Your task to perform on an android device: Search for the best rated 4K TV on Best Buy. Image 0: 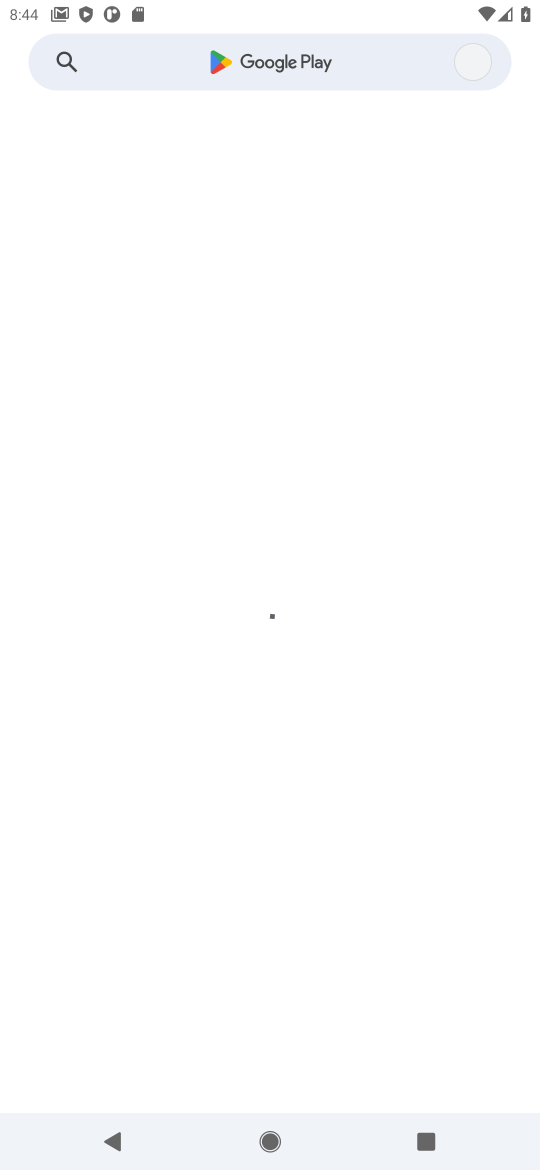
Step 0: press home button
Your task to perform on an android device: Search for the best rated 4K TV on Best Buy. Image 1: 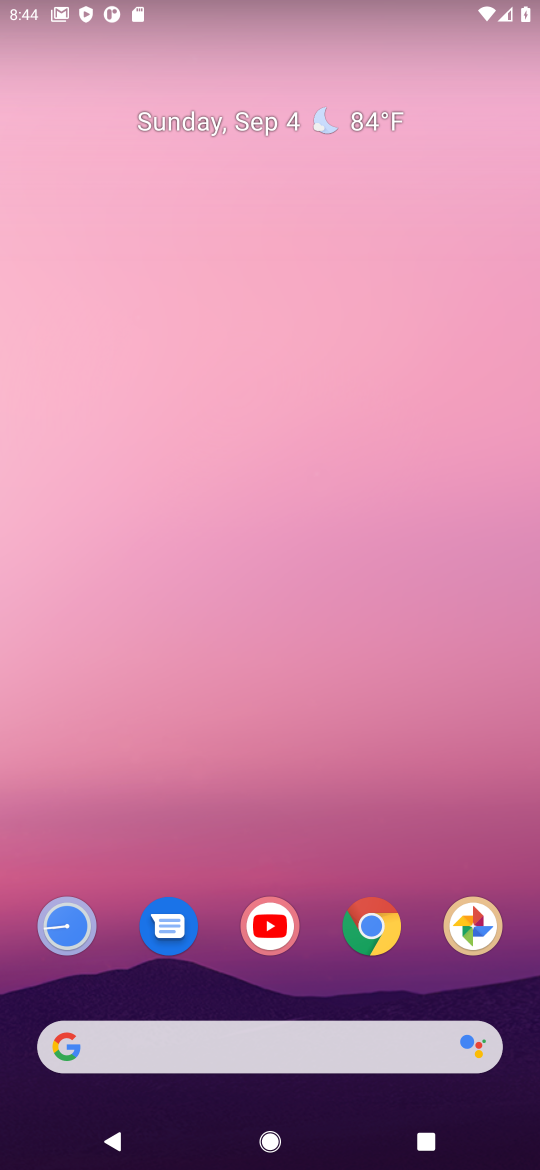
Step 1: click (234, 1042)
Your task to perform on an android device: Search for the best rated 4K TV on Best Buy. Image 2: 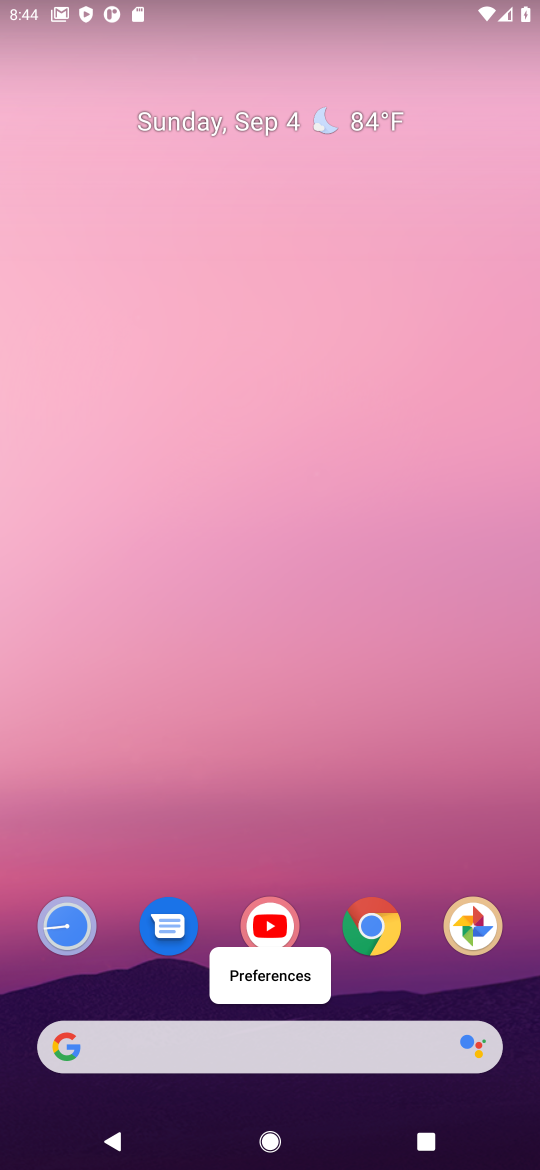
Step 2: click (97, 1043)
Your task to perform on an android device: Search for the best rated 4K TV on Best Buy. Image 3: 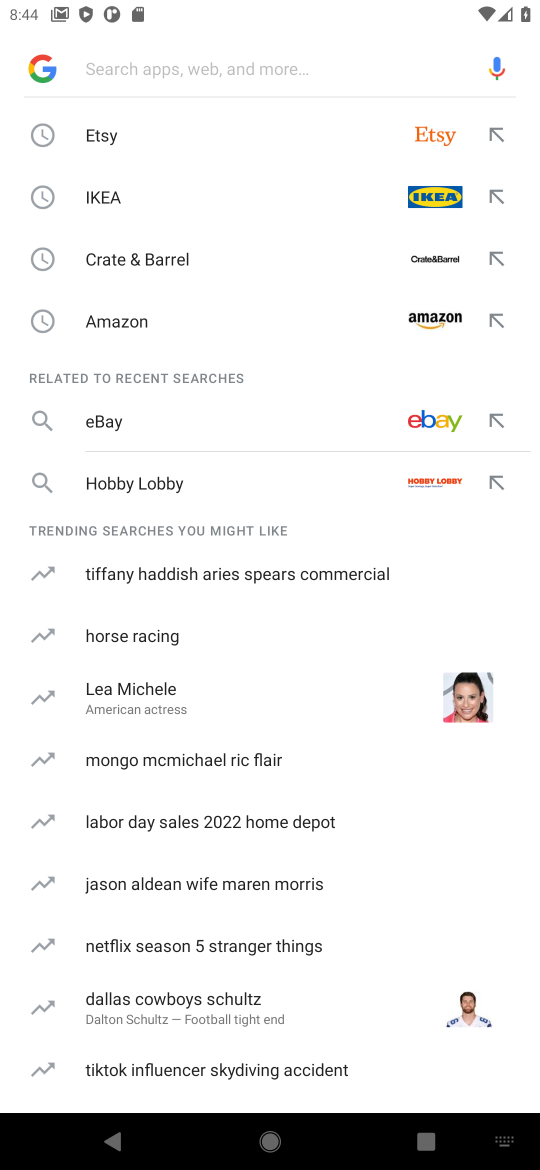
Step 3: type "best buy"
Your task to perform on an android device: Search for the best rated 4K TV on Best Buy. Image 4: 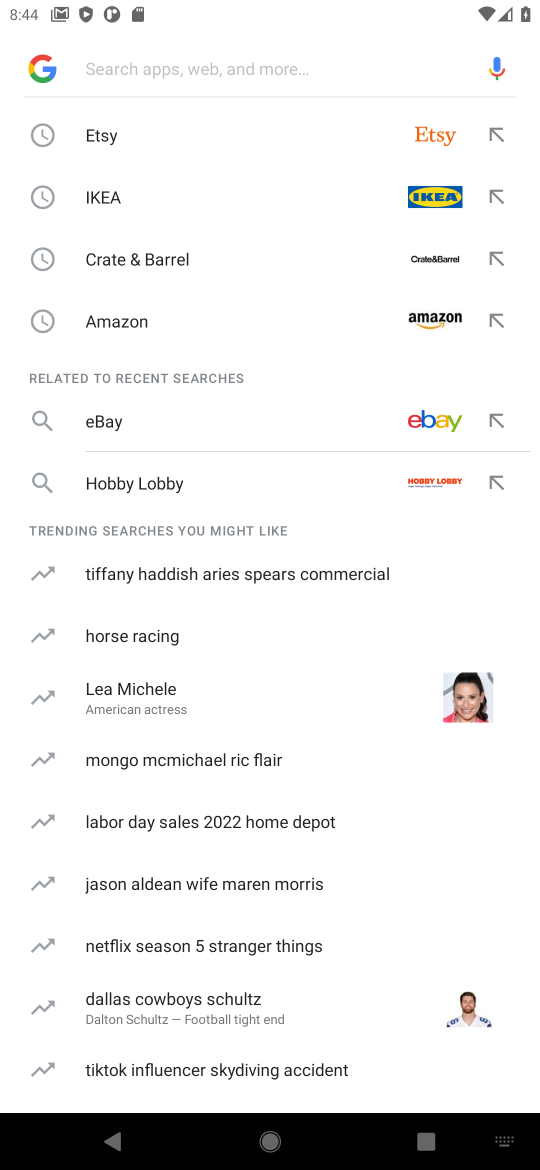
Step 4: click (128, 61)
Your task to perform on an android device: Search for the best rated 4K TV on Best Buy. Image 5: 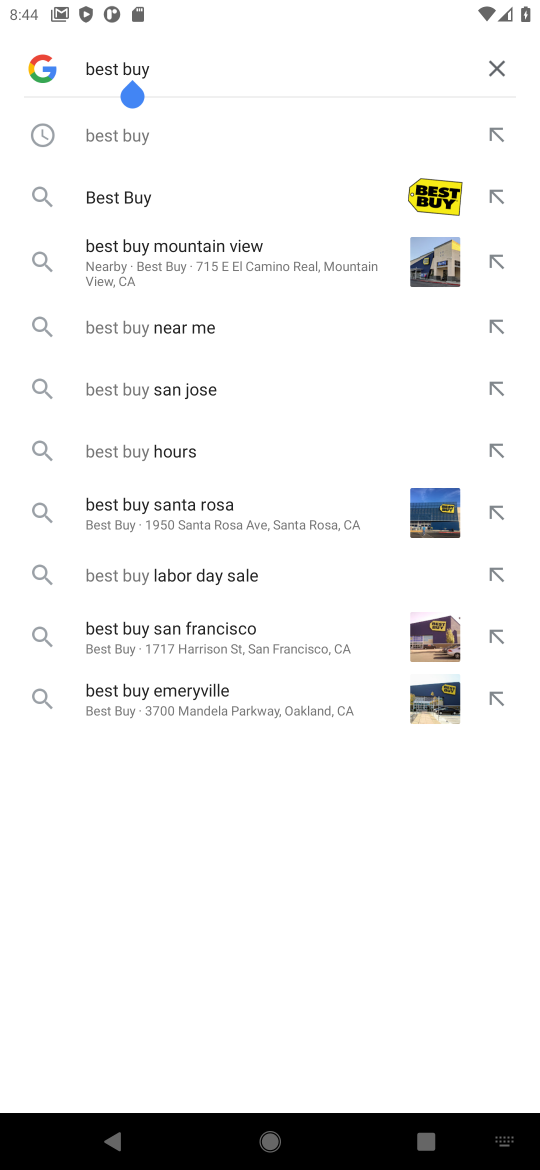
Step 5: click (148, 189)
Your task to perform on an android device: Search for the best rated 4K TV on Best Buy. Image 6: 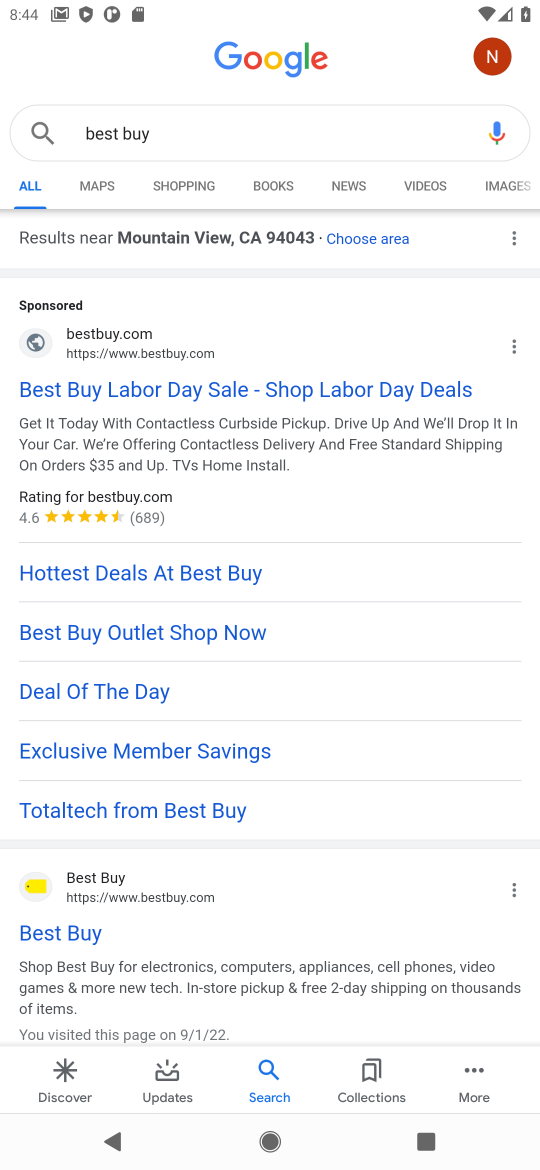
Step 6: click (139, 384)
Your task to perform on an android device: Search for the best rated 4K TV on Best Buy. Image 7: 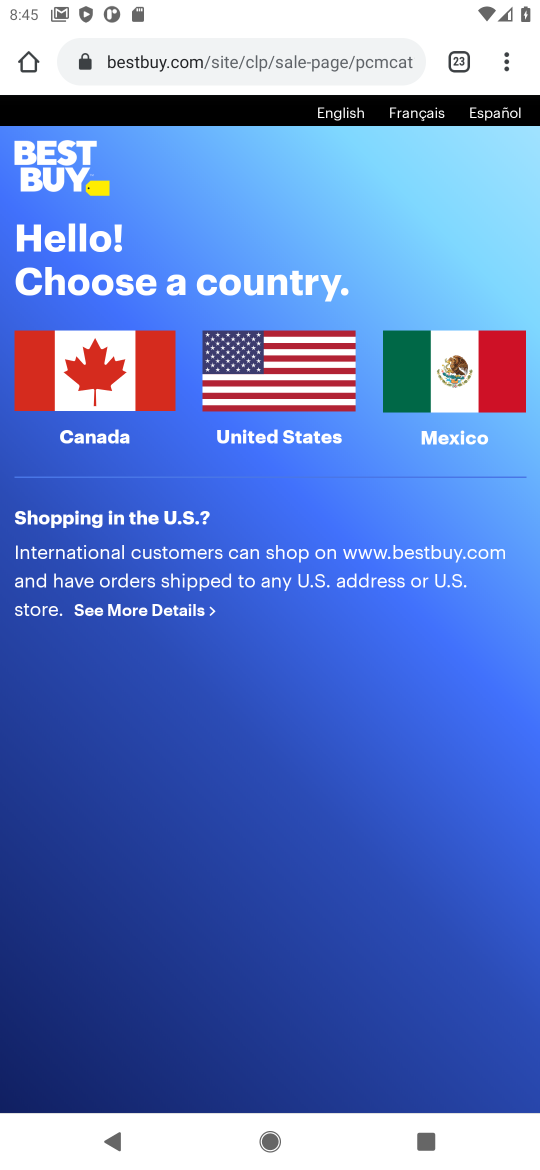
Step 7: click (267, 389)
Your task to perform on an android device: Search for the best rated 4K TV on Best Buy. Image 8: 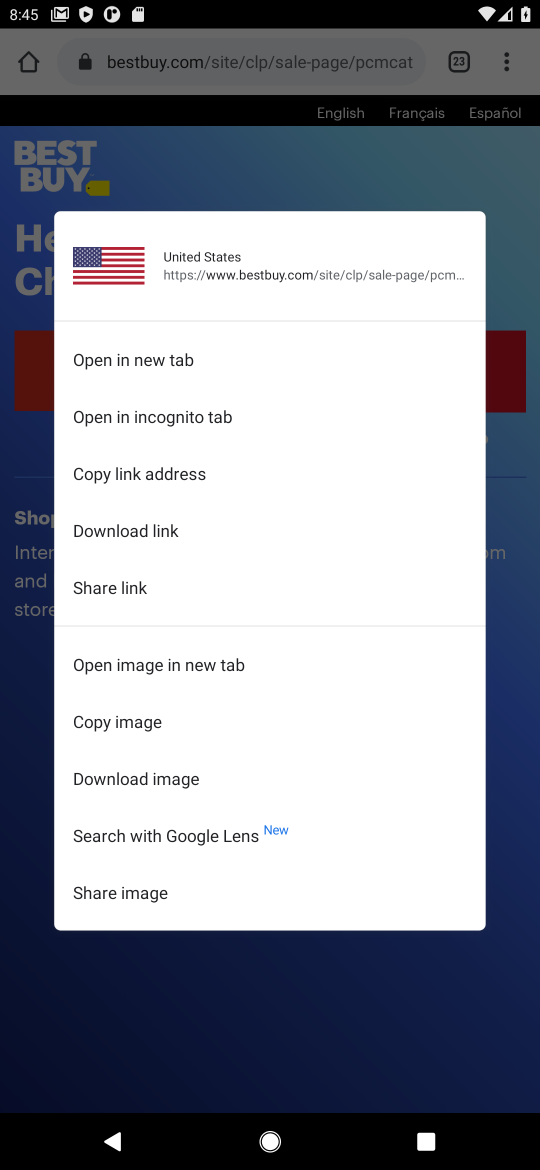
Step 8: click (232, 157)
Your task to perform on an android device: Search for the best rated 4K TV on Best Buy. Image 9: 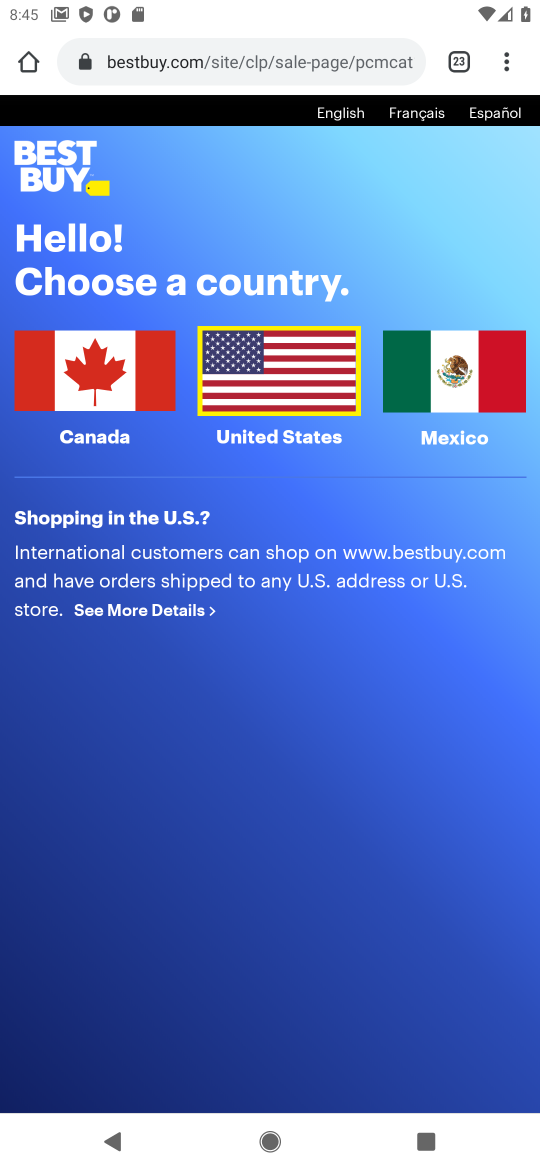
Step 9: click (271, 385)
Your task to perform on an android device: Search for the best rated 4K TV on Best Buy. Image 10: 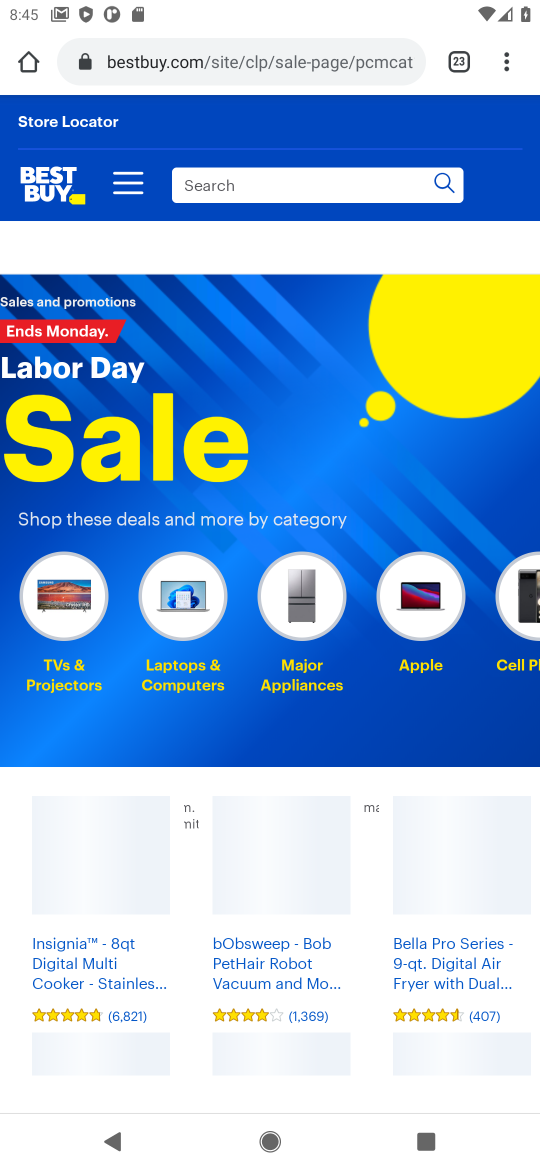
Step 10: click (228, 183)
Your task to perform on an android device: Search for the best rated 4K TV on Best Buy. Image 11: 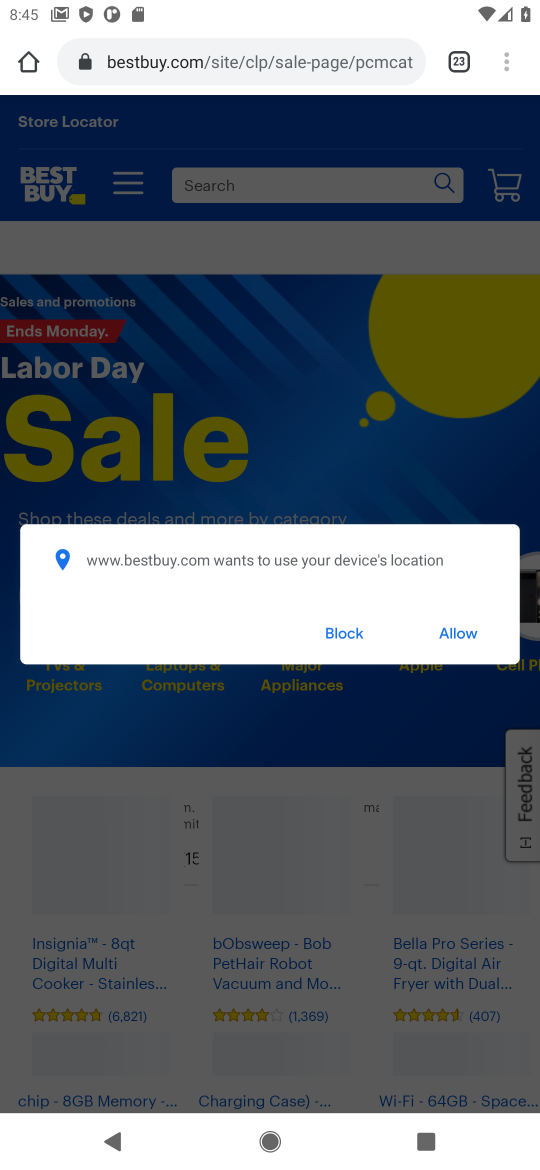
Step 11: type "best rated 4k tv"
Your task to perform on an android device: Search for the best rated 4K TV on Best Buy. Image 12: 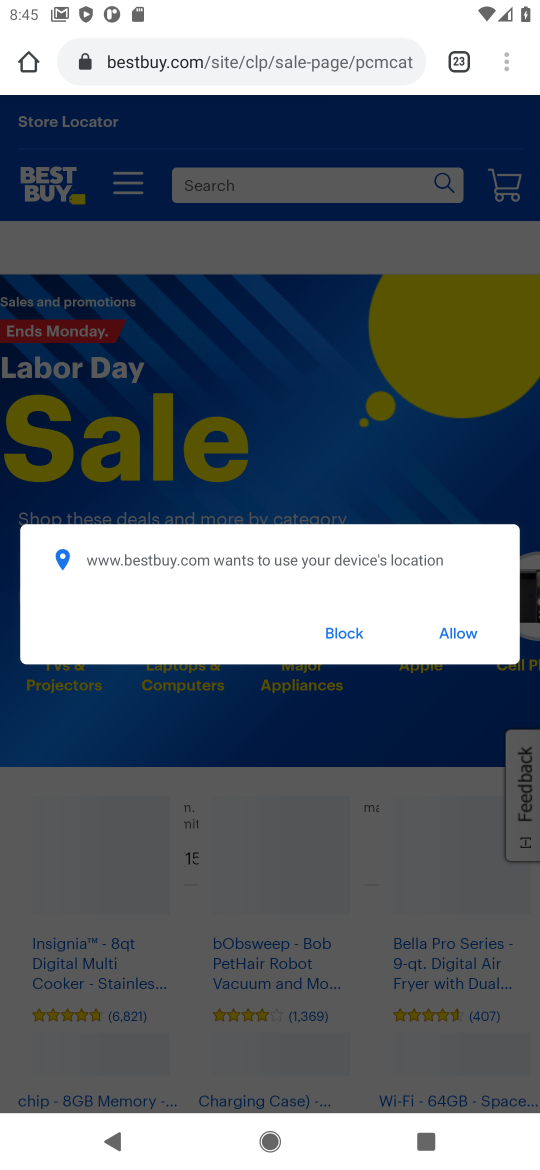
Step 12: click (462, 631)
Your task to perform on an android device: Search for the best rated 4K TV on Best Buy. Image 13: 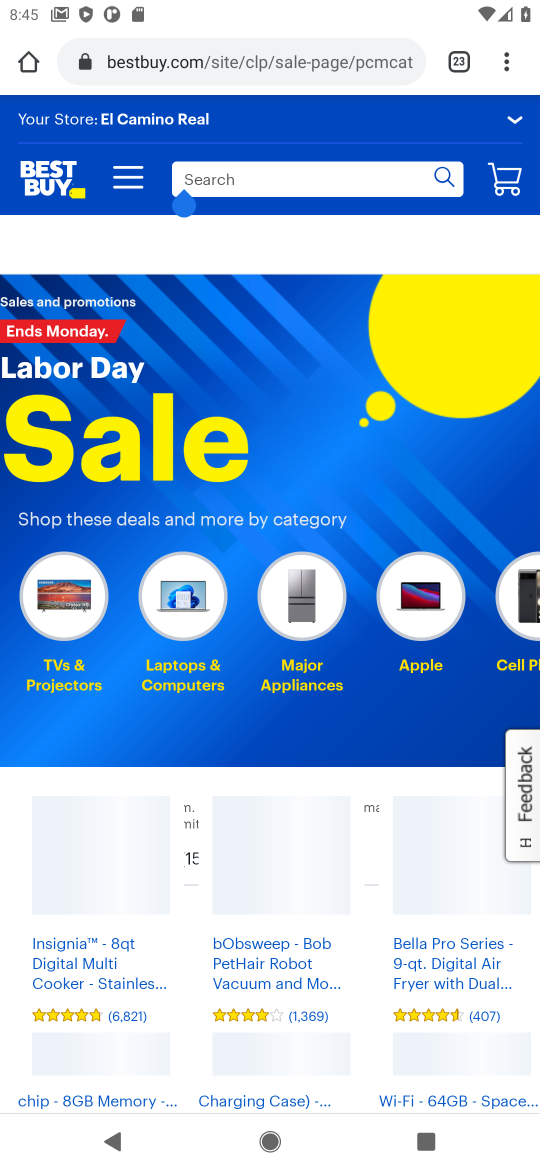
Step 13: click (311, 175)
Your task to perform on an android device: Search for the best rated 4K TV on Best Buy. Image 14: 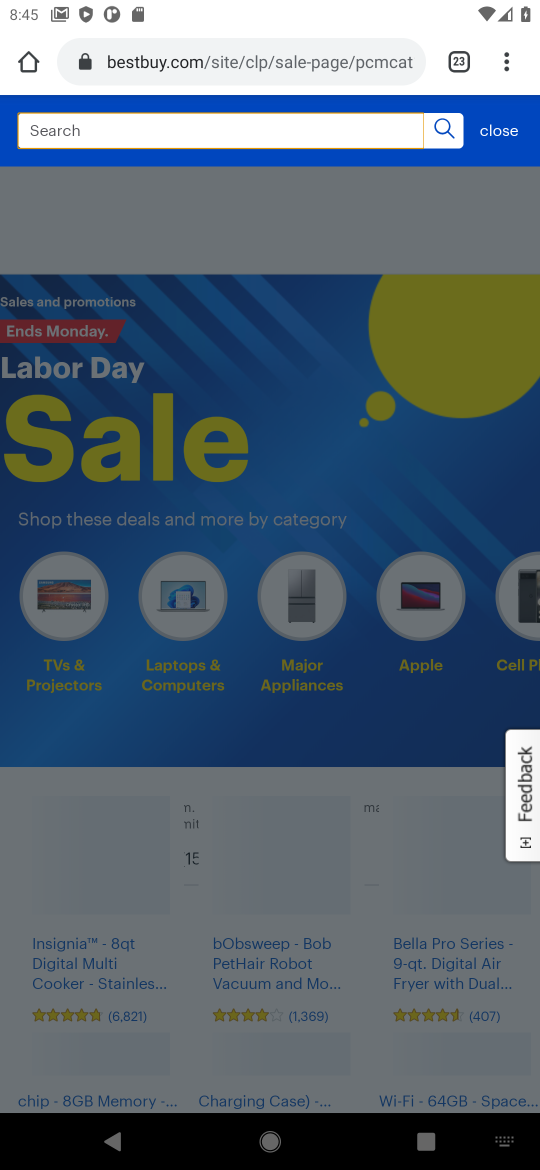
Step 14: type "best rated 4k tv"
Your task to perform on an android device: Search for the best rated 4K TV on Best Buy. Image 15: 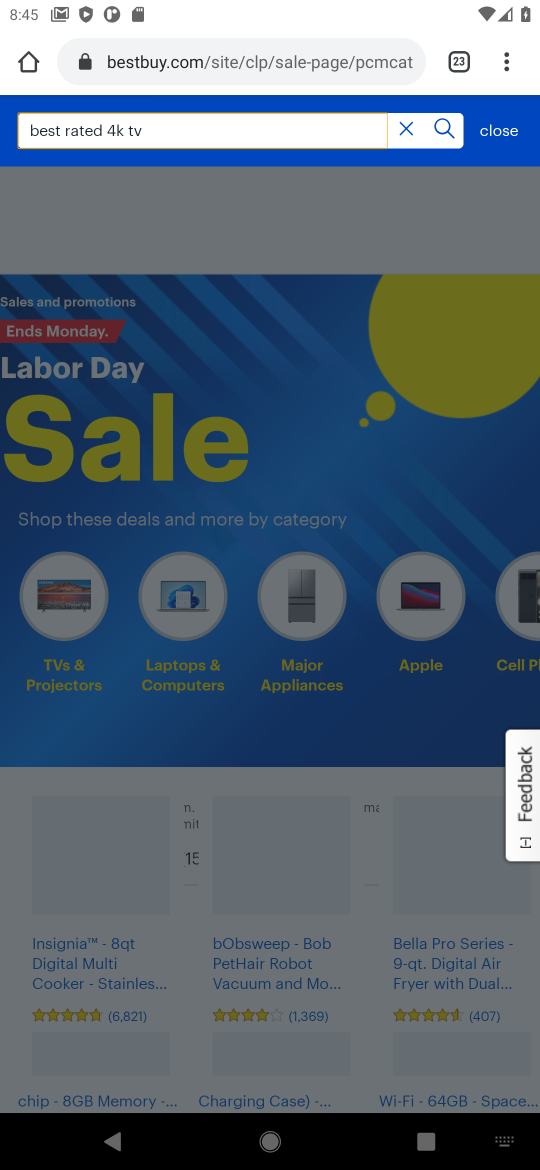
Step 15: click (444, 132)
Your task to perform on an android device: Search for the best rated 4K TV on Best Buy. Image 16: 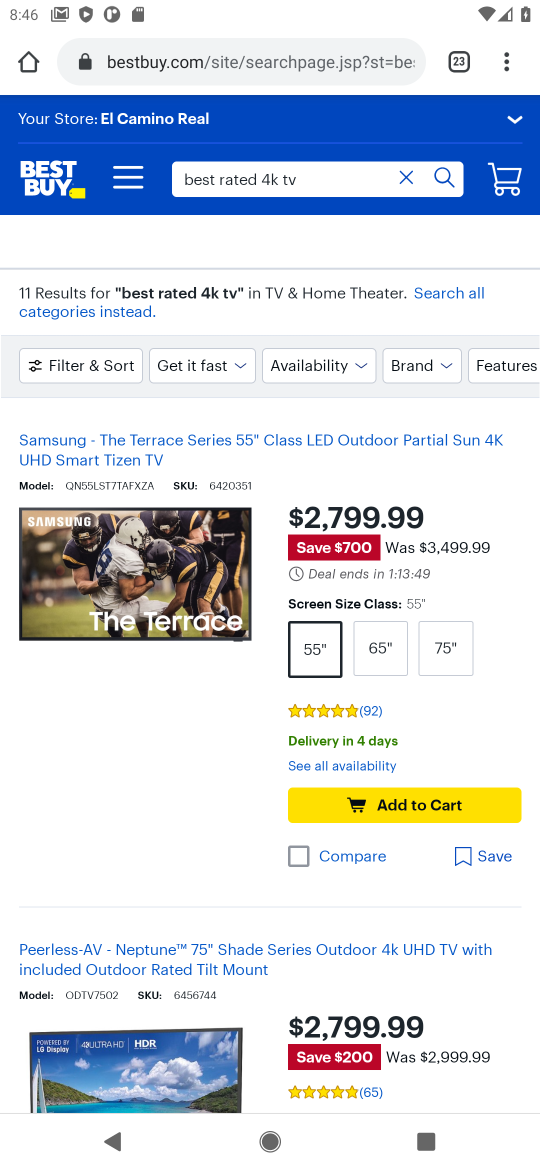
Step 16: task complete